Your task to perform on an android device: Do I have any events today? Image 0: 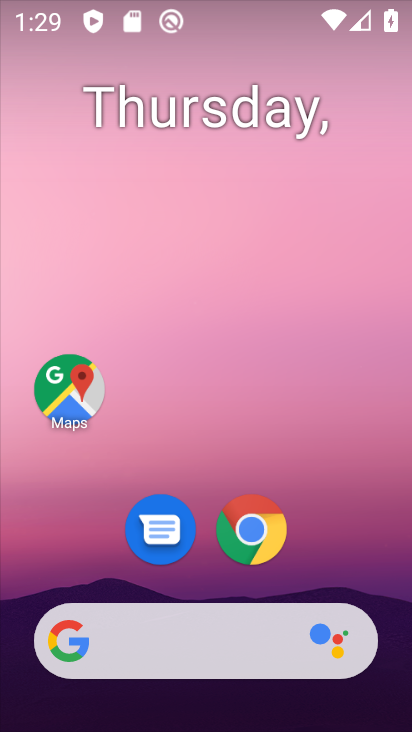
Step 0: drag from (115, 526) to (277, 170)
Your task to perform on an android device: Do I have any events today? Image 1: 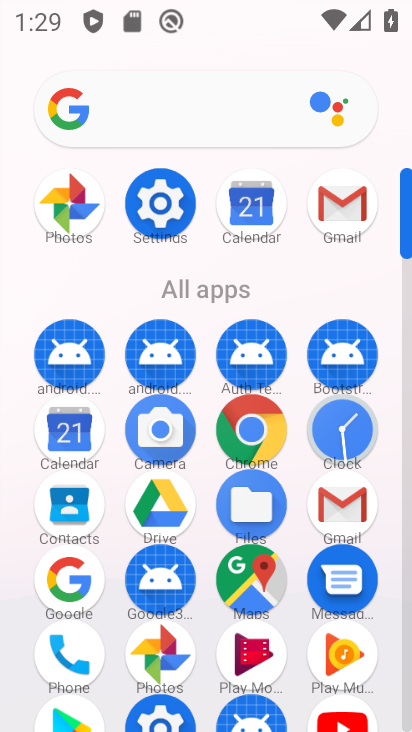
Step 1: click (76, 427)
Your task to perform on an android device: Do I have any events today? Image 2: 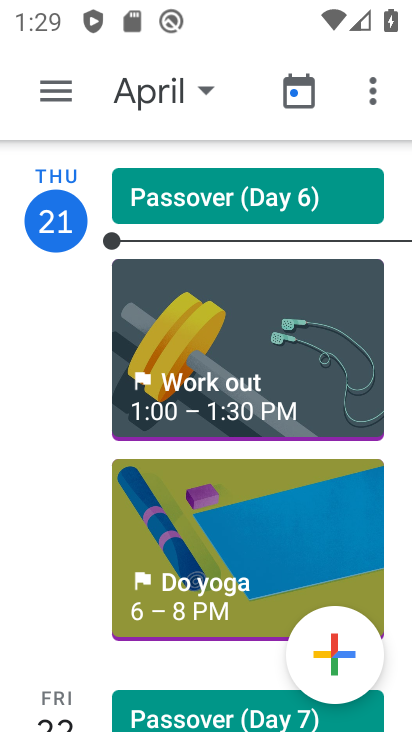
Step 2: click (149, 96)
Your task to perform on an android device: Do I have any events today? Image 3: 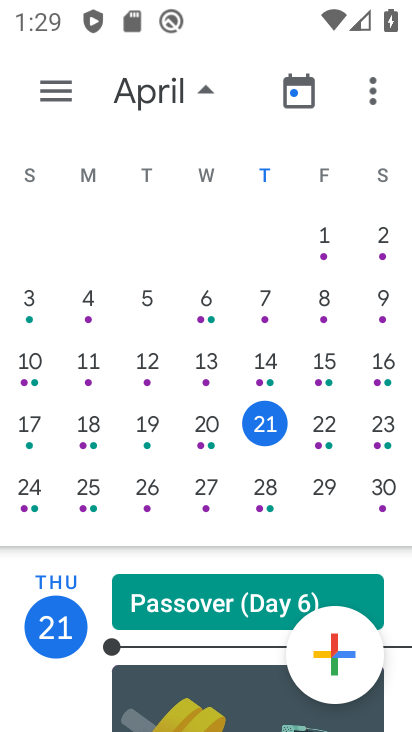
Step 3: click (264, 422)
Your task to perform on an android device: Do I have any events today? Image 4: 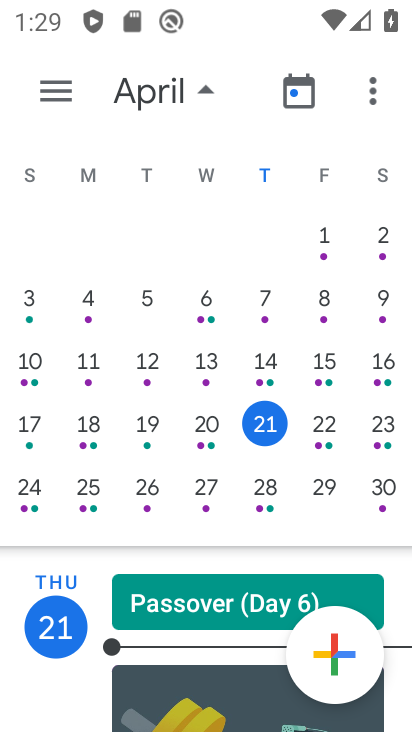
Step 4: click (265, 420)
Your task to perform on an android device: Do I have any events today? Image 5: 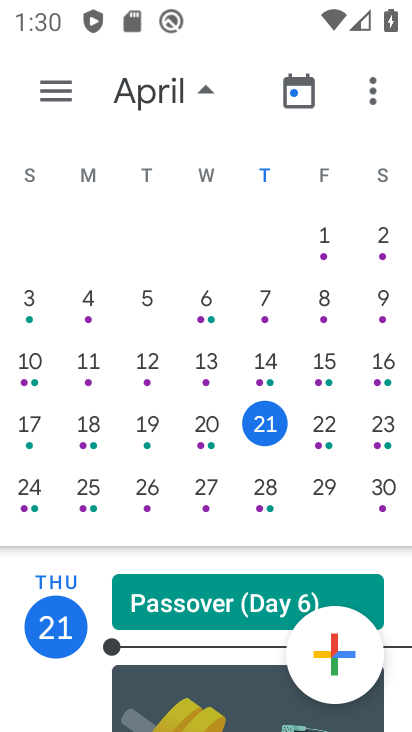
Step 5: click (261, 426)
Your task to perform on an android device: Do I have any events today? Image 6: 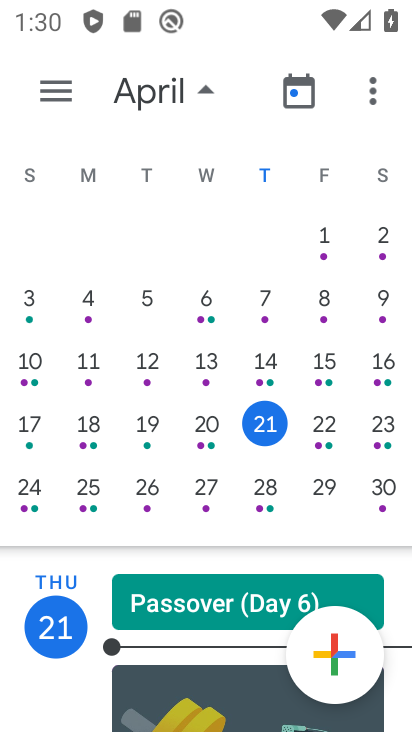
Step 6: task complete